Your task to perform on an android device: Search for Italian restaurants on Maps Image 0: 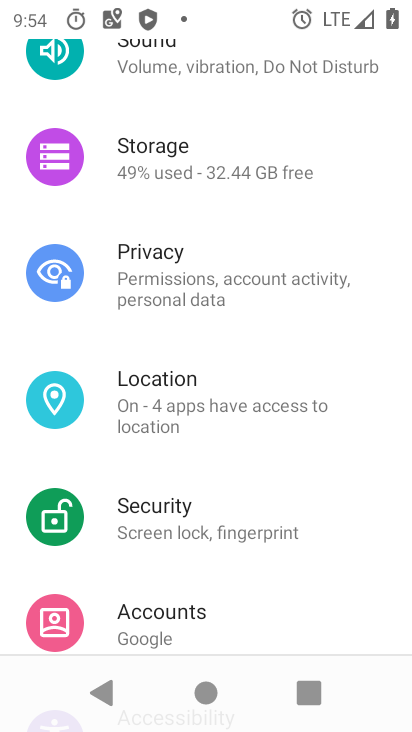
Step 0: press home button
Your task to perform on an android device: Search for Italian restaurants on Maps Image 1: 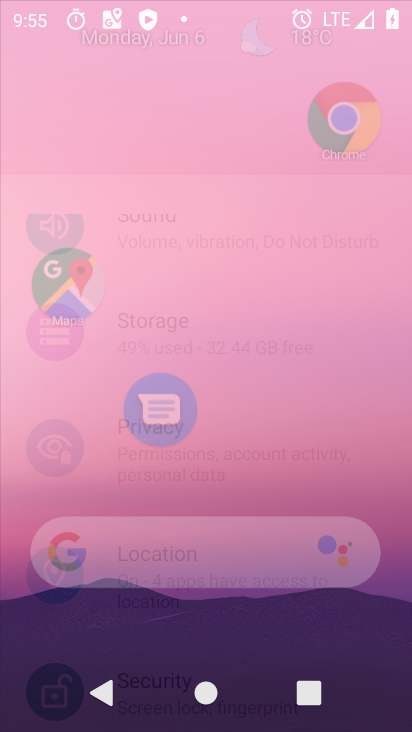
Step 1: drag from (235, 579) to (310, 15)
Your task to perform on an android device: Search for Italian restaurants on Maps Image 2: 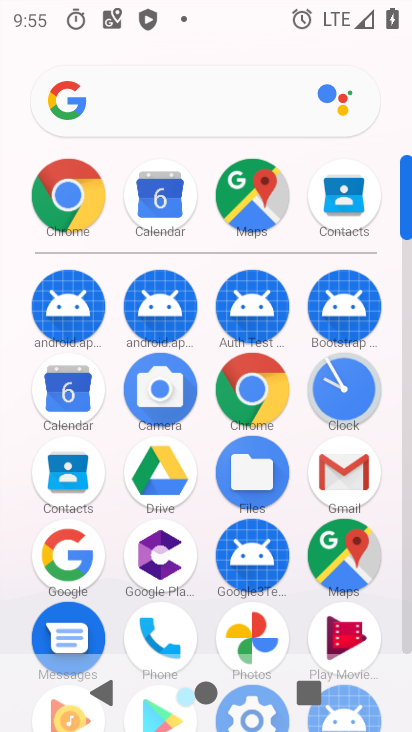
Step 2: click (261, 171)
Your task to perform on an android device: Search for Italian restaurants on Maps Image 3: 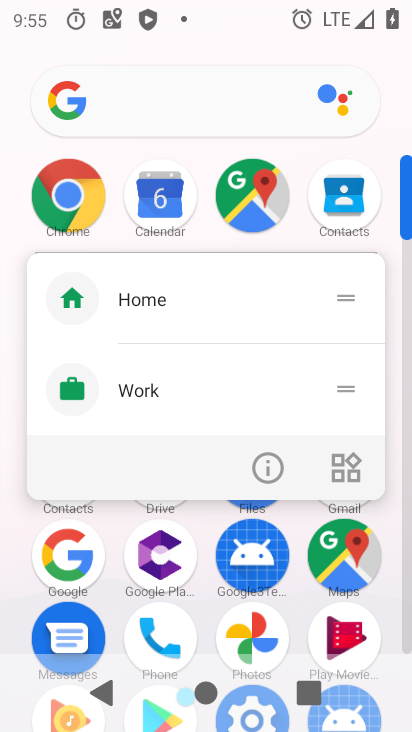
Step 3: click (262, 463)
Your task to perform on an android device: Search for Italian restaurants on Maps Image 4: 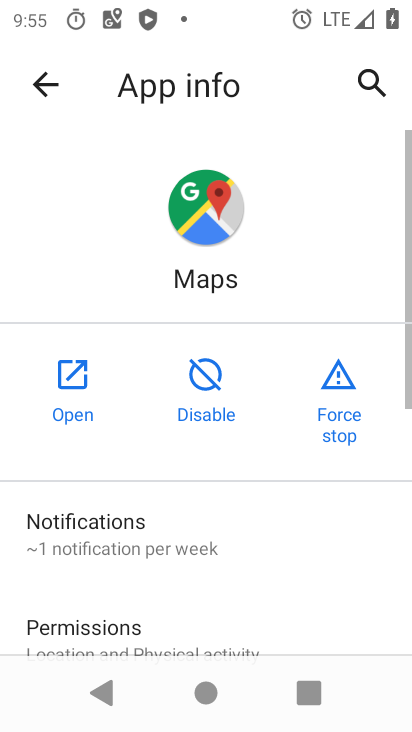
Step 4: click (73, 382)
Your task to perform on an android device: Search for Italian restaurants on Maps Image 5: 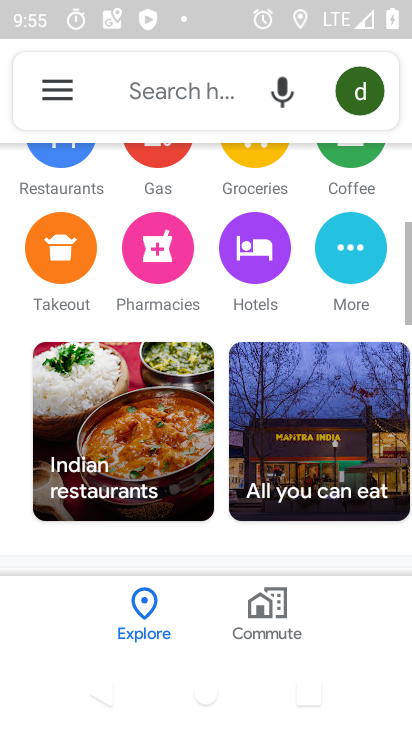
Step 5: click (140, 105)
Your task to perform on an android device: Search for Italian restaurants on Maps Image 6: 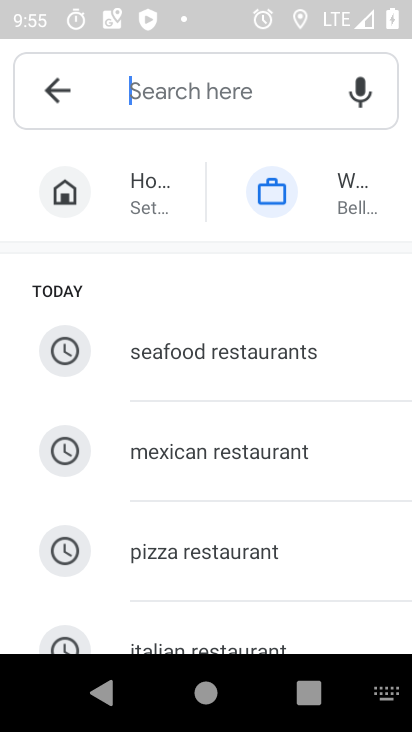
Step 6: drag from (203, 558) to (264, 257)
Your task to perform on an android device: Search for Italian restaurants on Maps Image 7: 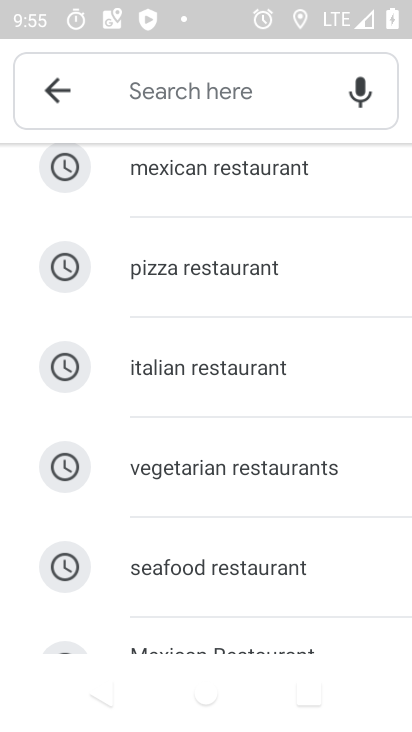
Step 7: click (169, 382)
Your task to perform on an android device: Search for Italian restaurants on Maps Image 8: 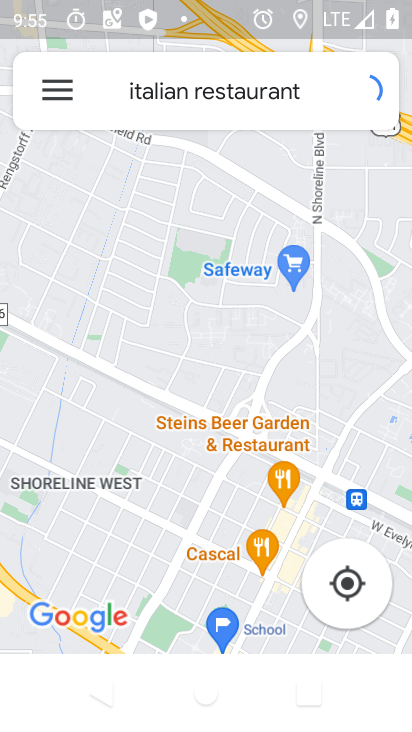
Step 8: task complete